Your task to perform on an android device: Open location settings Image 0: 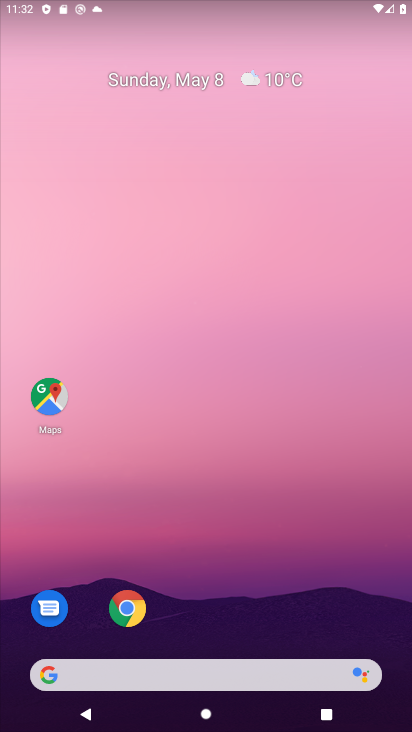
Step 0: drag from (248, 600) to (251, 247)
Your task to perform on an android device: Open location settings Image 1: 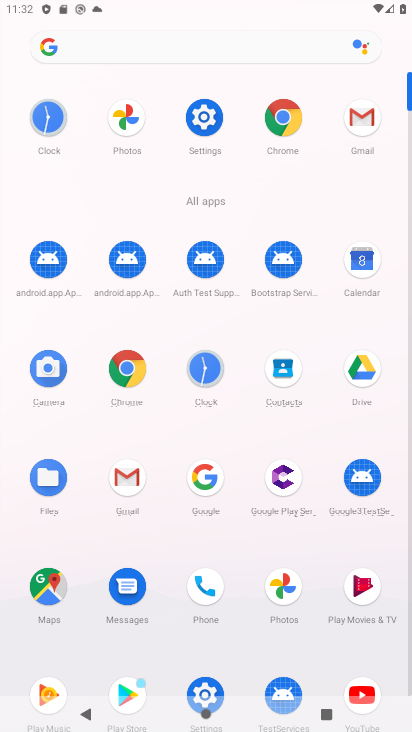
Step 1: click (212, 147)
Your task to perform on an android device: Open location settings Image 2: 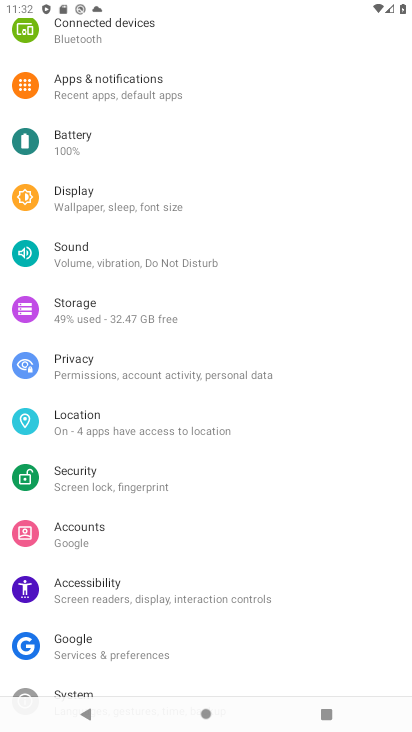
Step 2: click (105, 421)
Your task to perform on an android device: Open location settings Image 3: 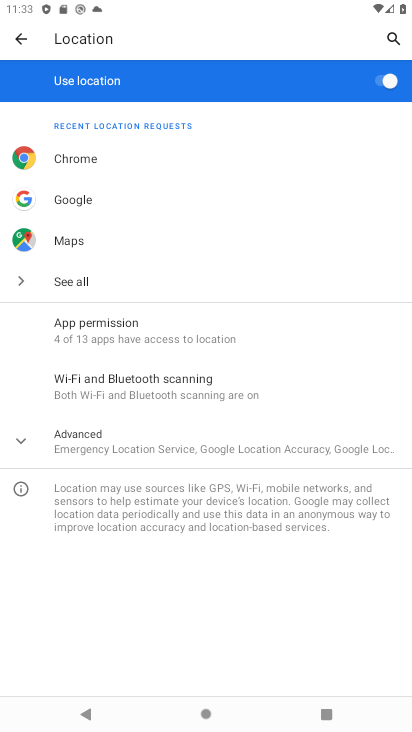
Step 3: press home button
Your task to perform on an android device: Open location settings Image 4: 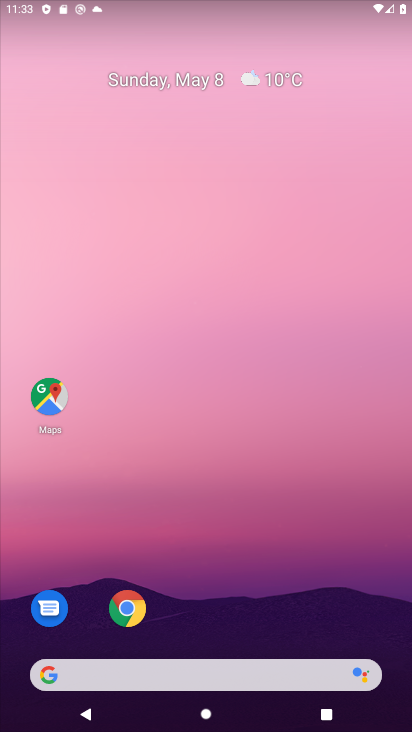
Step 4: drag from (326, 605) to (310, 195)
Your task to perform on an android device: Open location settings Image 5: 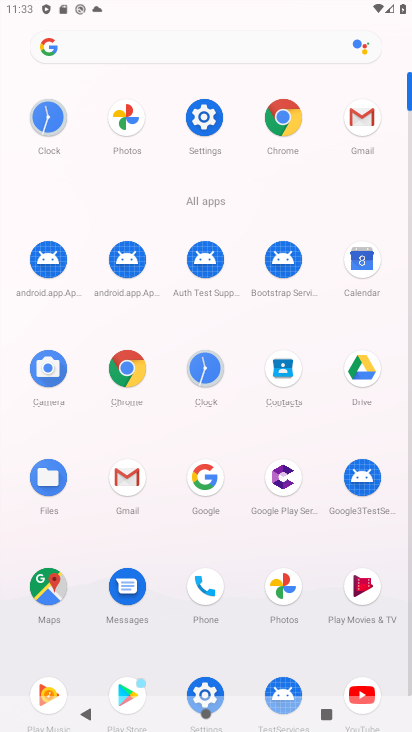
Step 5: click (193, 115)
Your task to perform on an android device: Open location settings Image 6: 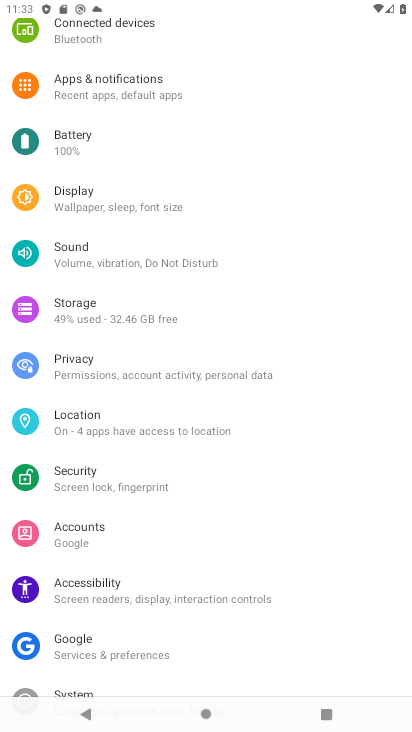
Step 6: click (132, 418)
Your task to perform on an android device: Open location settings Image 7: 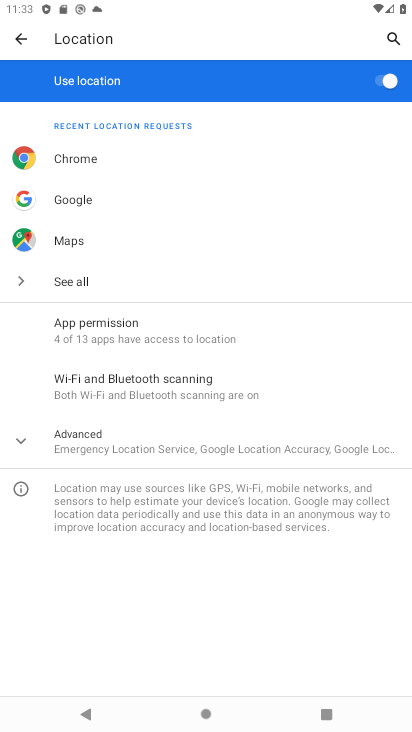
Step 7: task complete